Your task to perform on an android device: change the clock display to show seconds Image 0: 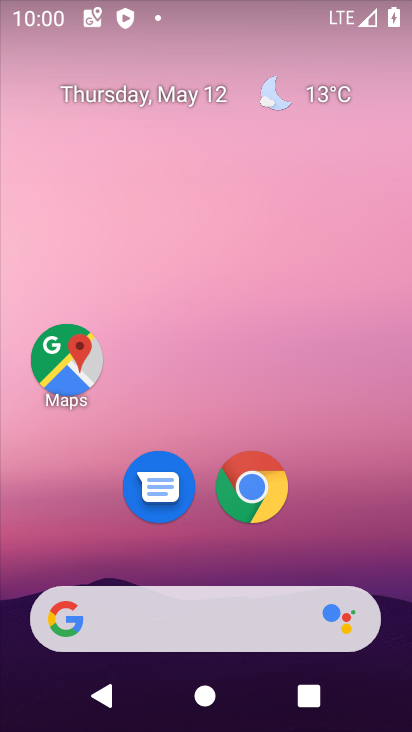
Step 0: drag from (370, 569) to (335, 25)
Your task to perform on an android device: change the clock display to show seconds Image 1: 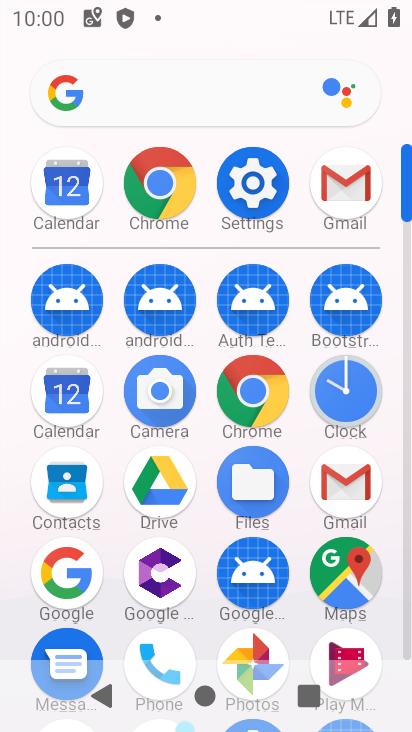
Step 1: click (340, 390)
Your task to perform on an android device: change the clock display to show seconds Image 2: 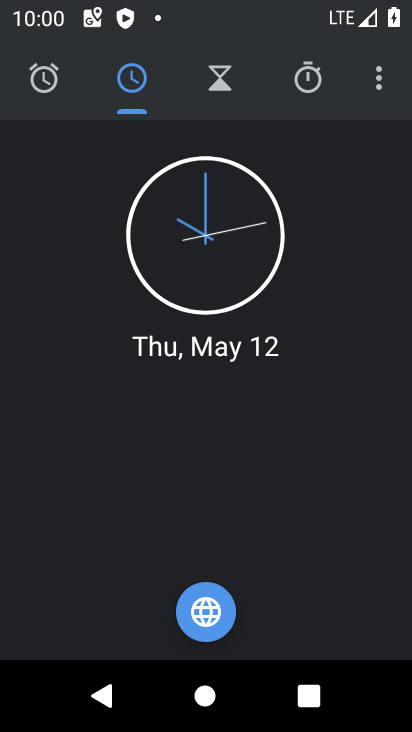
Step 2: click (378, 82)
Your task to perform on an android device: change the clock display to show seconds Image 3: 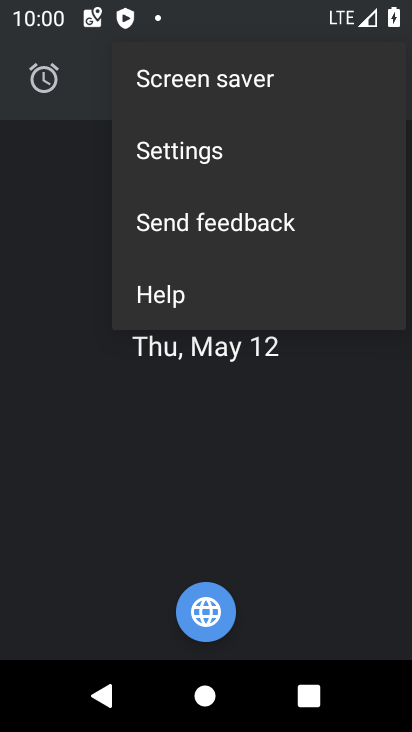
Step 3: click (192, 155)
Your task to perform on an android device: change the clock display to show seconds Image 4: 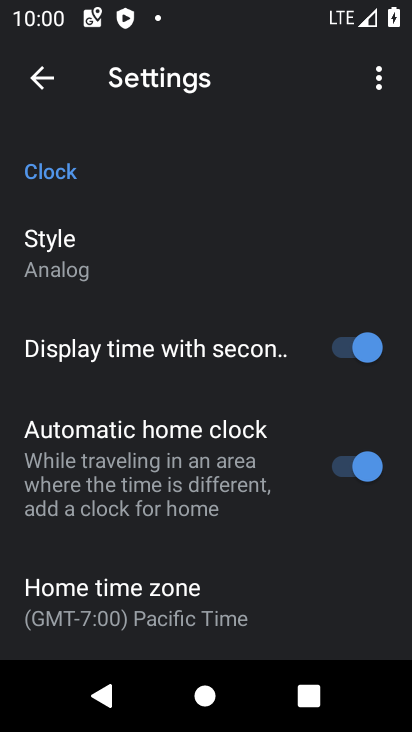
Step 4: task complete